Your task to perform on an android device: turn off improve location accuracy Image 0: 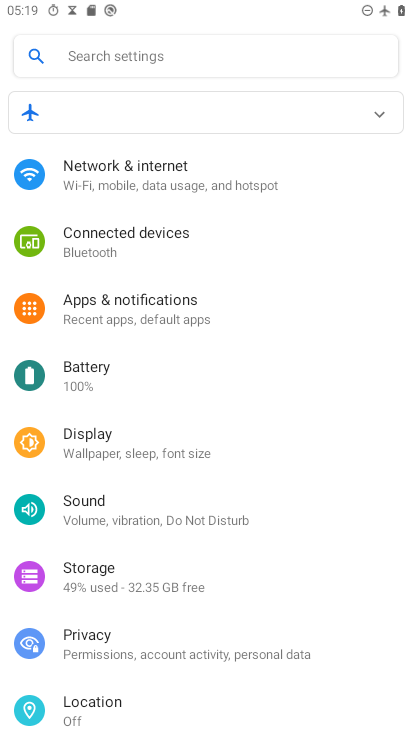
Step 0: click (93, 703)
Your task to perform on an android device: turn off improve location accuracy Image 1: 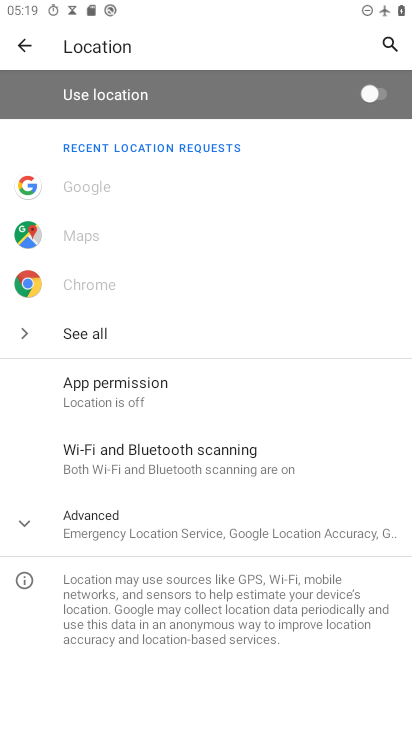
Step 1: click (188, 538)
Your task to perform on an android device: turn off improve location accuracy Image 2: 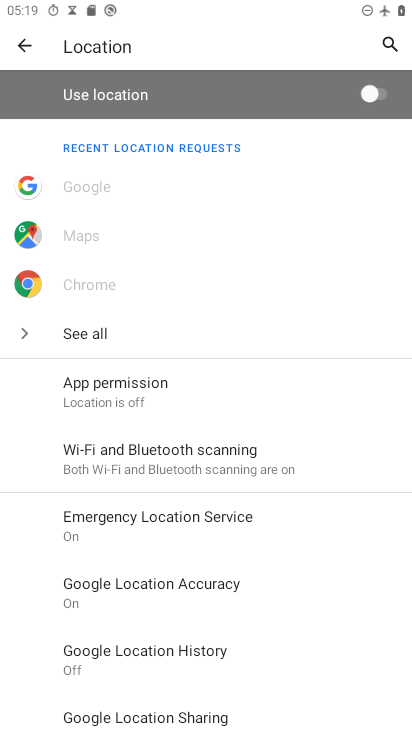
Step 2: click (210, 595)
Your task to perform on an android device: turn off improve location accuracy Image 3: 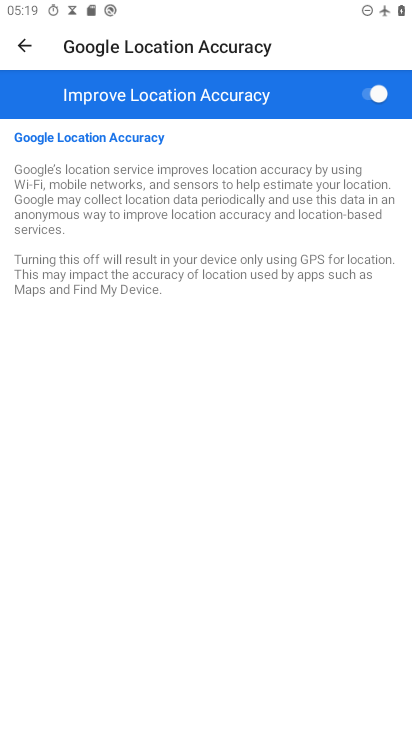
Step 3: click (369, 85)
Your task to perform on an android device: turn off improve location accuracy Image 4: 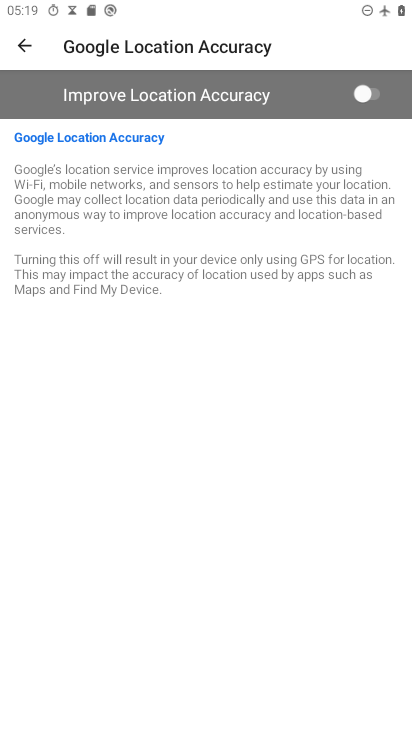
Step 4: task complete